Your task to perform on an android device: toggle data saver in the chrome app Image 0: 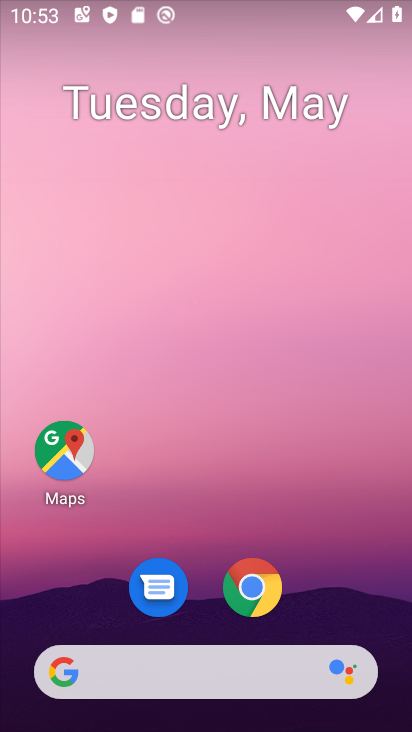
Step 0: drag from (327, 522) to (246, 11)
Your task to perform on an android device: toggle data saver in the chrome app Image 1: 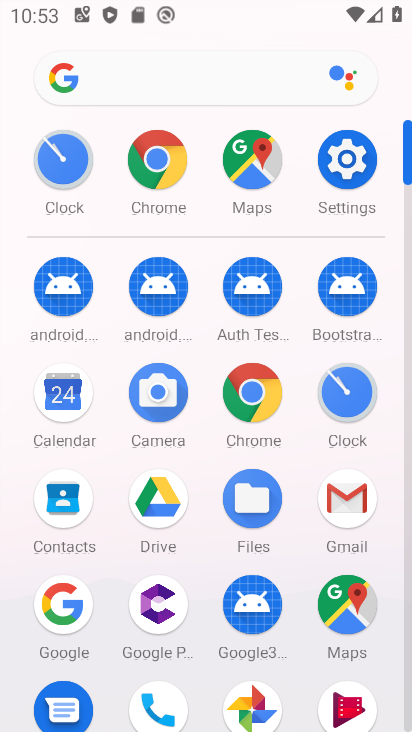
Step 1: drag from (6, 561) to (16, 241)
Your task to perform on an android device: toggle data saver in the chrome app Image 2: 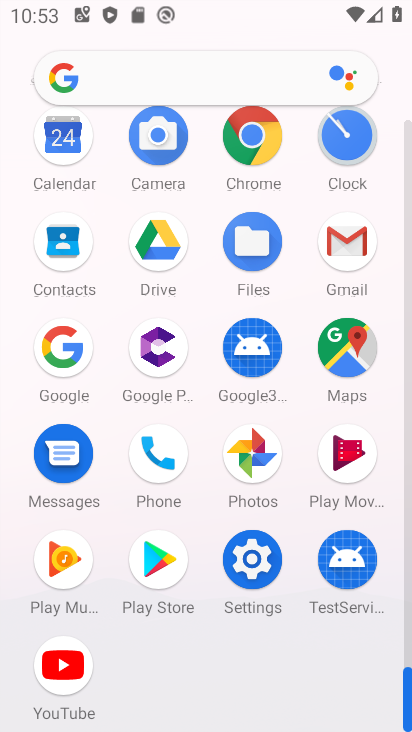
Step 2: click (250, 128)
Your task to perform on an android device: toggle data saver in the chrome app Image 3: 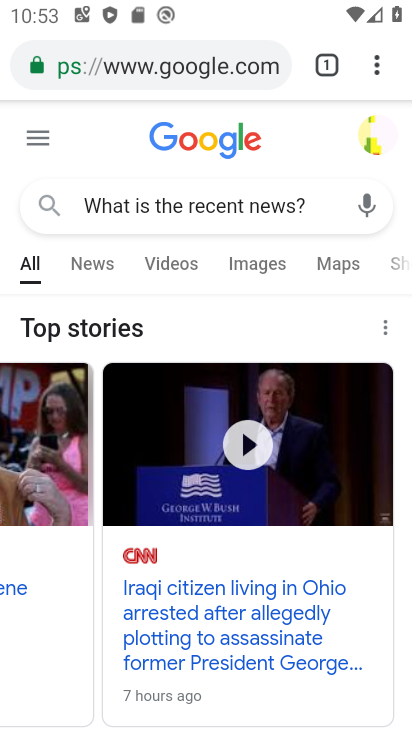
Step 3: drag from (375, 65) to (209, 622)
Your task to perform on an android device: toggle data saver in the chrome app Image 4: 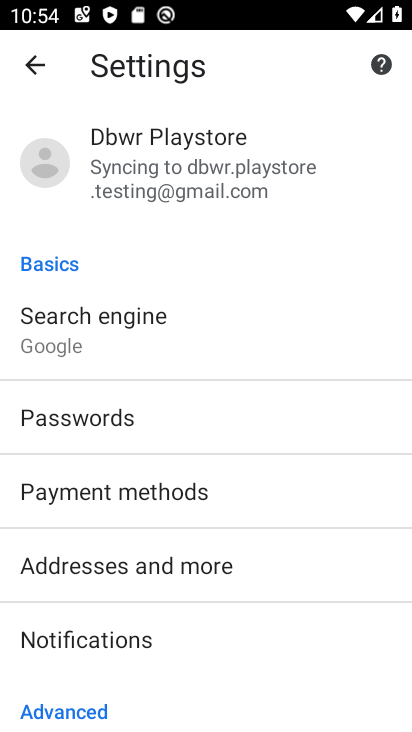
Step 4: drag from (297, 571) to (276, 176)
Your task to perform on an android device: toggle data saver in the chrome app Image 5: 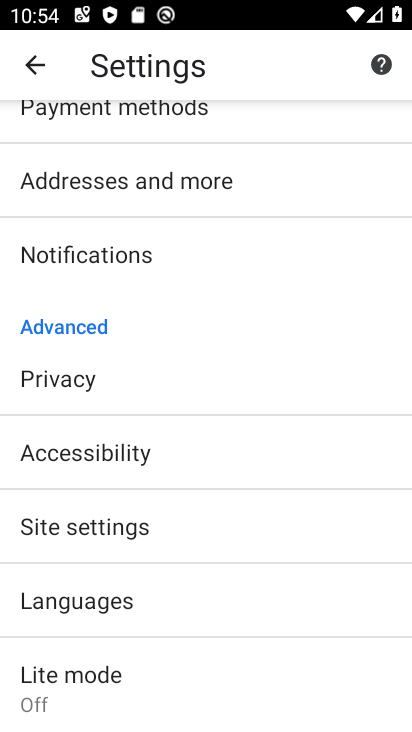
Step 5: drag from (231, 686) to (254, 347)
Your task to perform on an android device: toggle data saver in the chrome app Image 6: 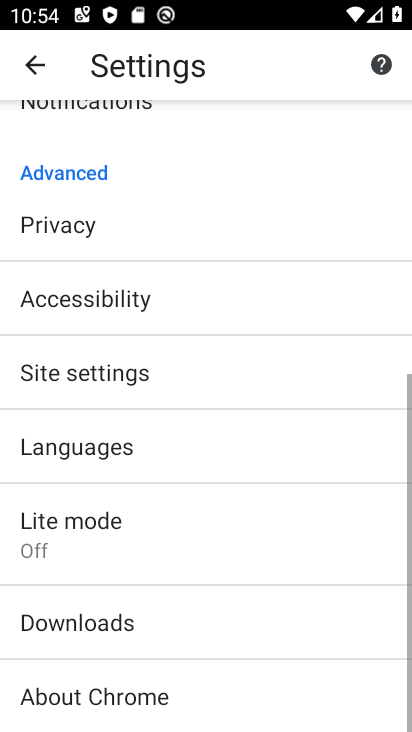
Step 6: click (105, 524)
Your task to perform on an android device: toggle data saver in the chrome app Image 7: 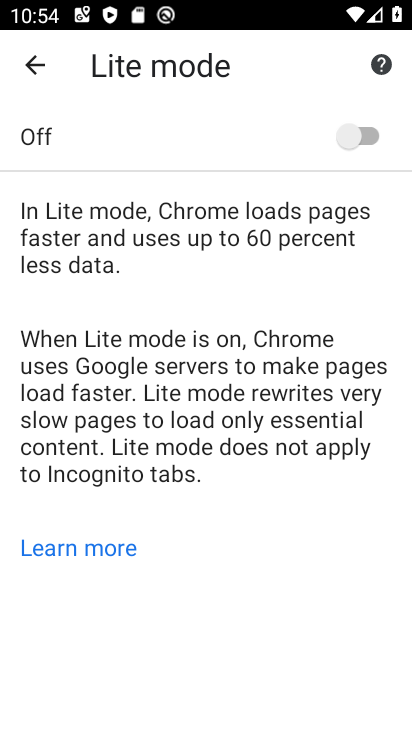
Step 7: click (341, 129)
Your task to perform on an android device: toggle data saver in the chrome app Image 8: 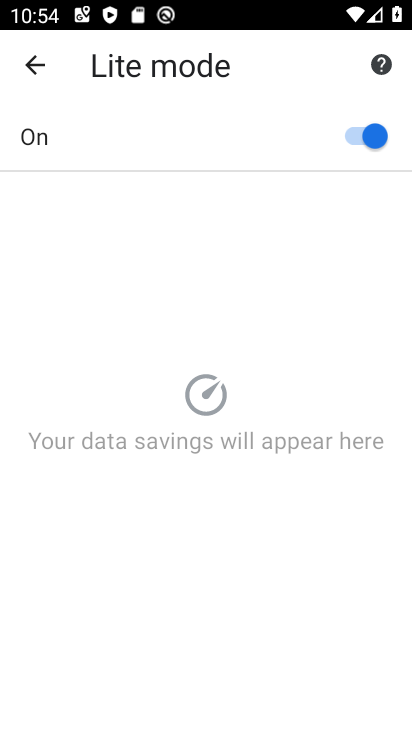
Step 8: task complete